Your task to perform on an android device: change the clock display to analog Image 0: 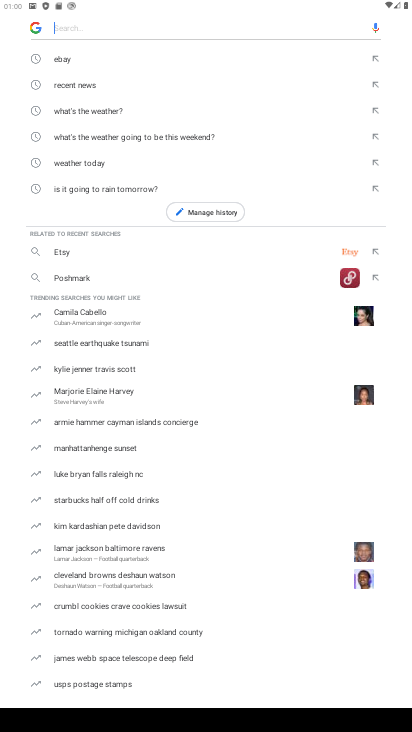
Step 0: press home button
Your task to perform on an android device: change the clock display to analog Image 1: 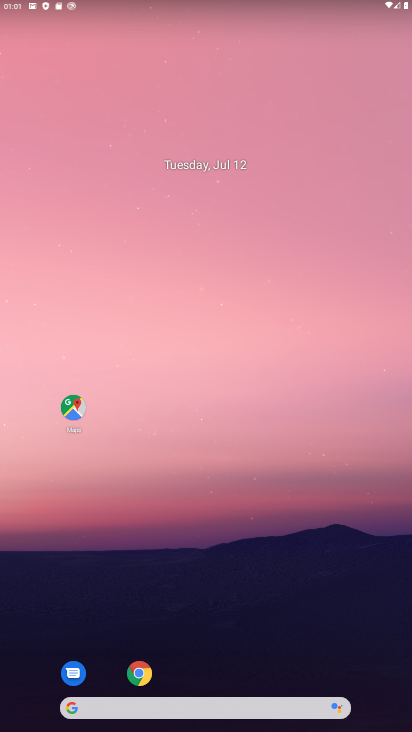
Step 1: drag from (233, 592) to (329, 50)
Your task to perform on an android device: change the clock display to analog Image 2: 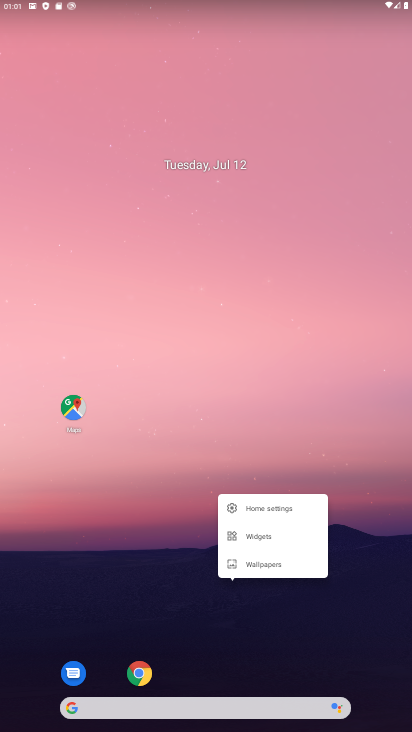
Step 2: drag from (187, 606) to (121, 91)
Your task to perform on an android device: change the clock display to analog Image 3: 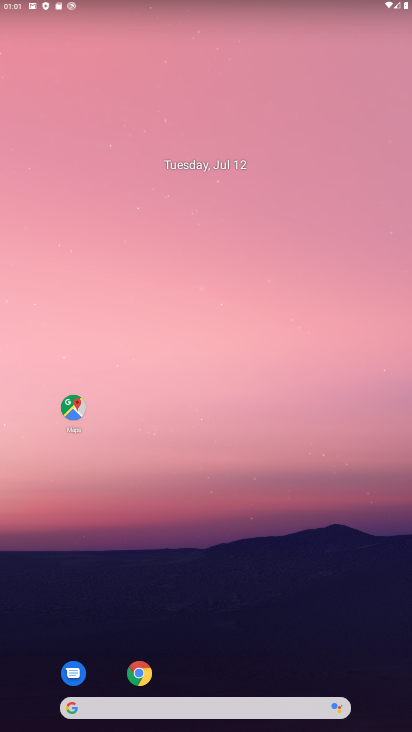
Step 3: drag from (227, 683) to (233, 123)
Your task to perform on an android device: change the clock display to analog Image 4: 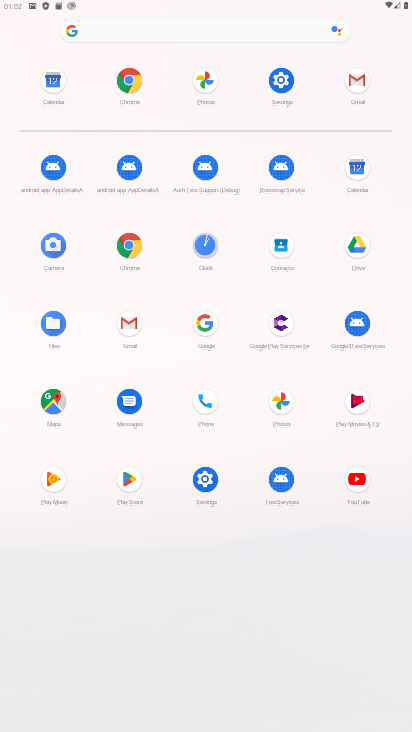
Step 4: click (210, 249)
Your task to perform on an android device: change the clock display to analog Image 5: 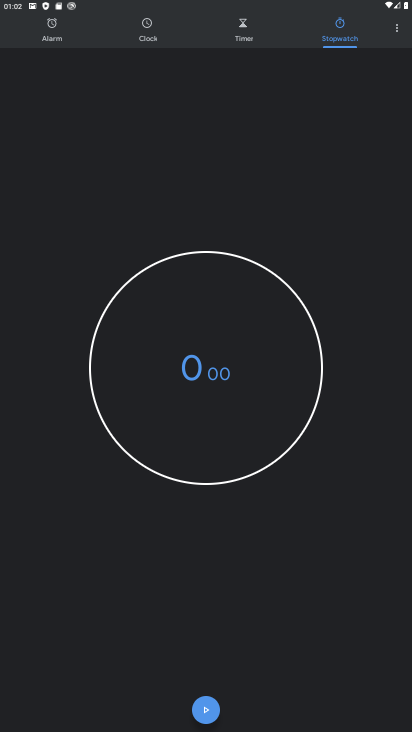
Step 5: click (392, 20)
Your task to perform on an android device: change the clock display to analog Image 6: 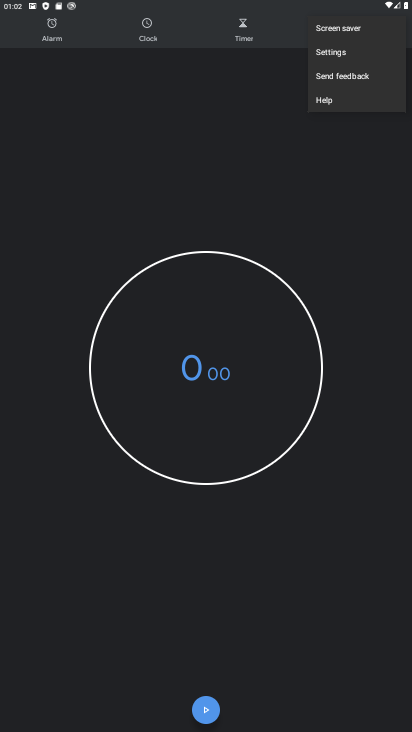
Step 6: click (335, 50)
Your task to perform on an android device: change the clock display to analog Image 7: 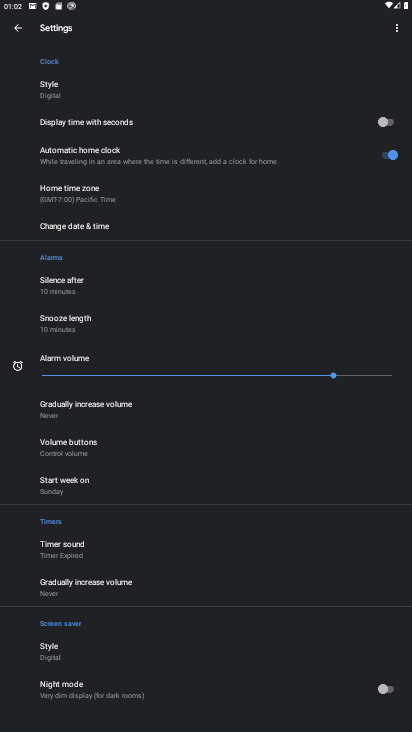
Step 7: click (49, 88)
Your task to perform on an android device: change the clock display to analog Image 8: 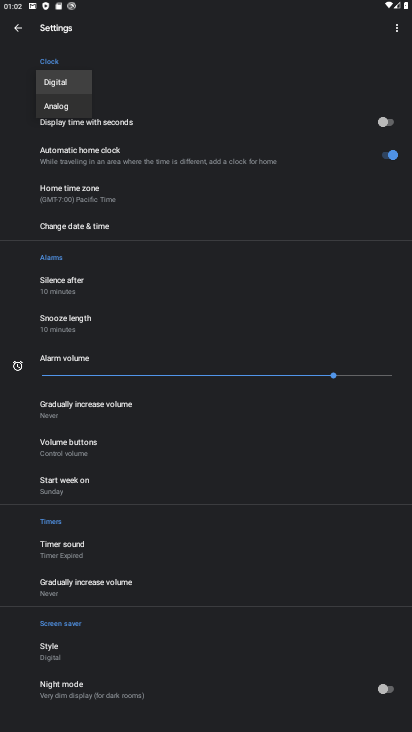
Step 8: click (52, 105)
Your task to perform on an android device: change the clock display to analog Image 9: 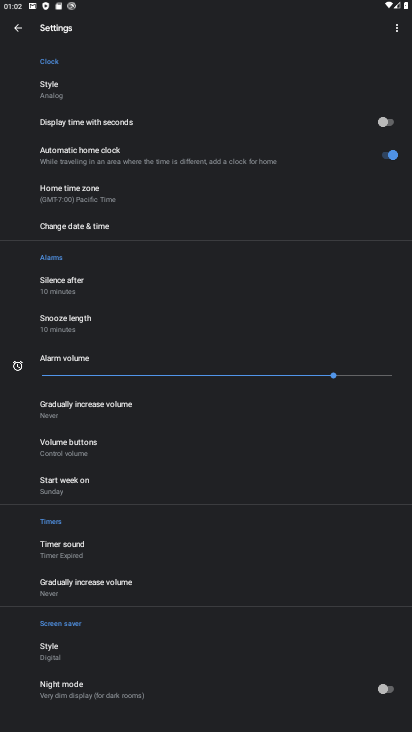
Step 9: task complete